Your task to perform on an android device: see tabs open on other devices in the chrome app Image 0: 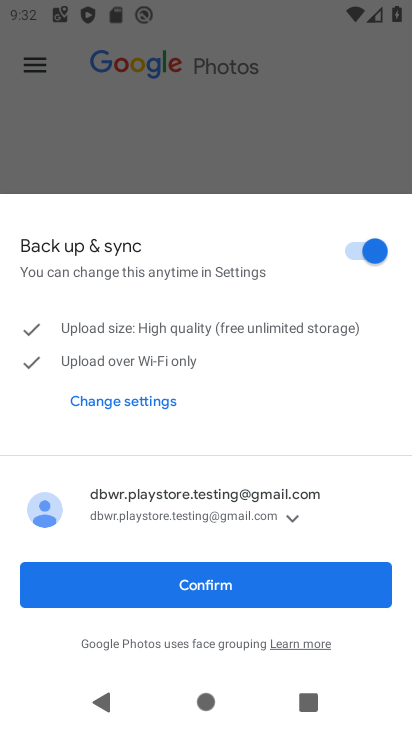
Step 0: press home button
Your task to perform on an android device: see tabs open on other devices in the chrome app Image 1: 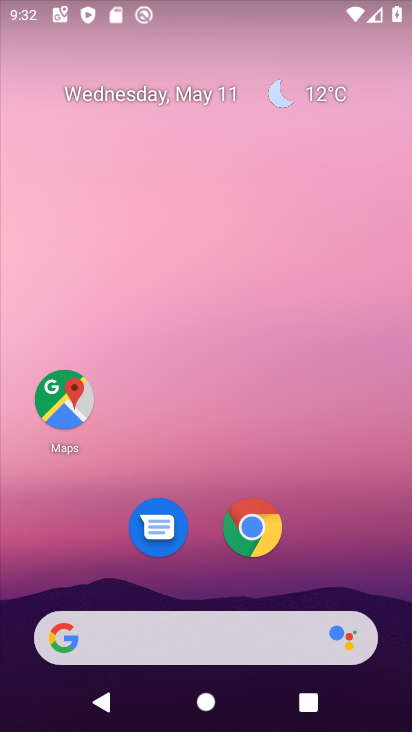
Step 1: drag from (328, 548) to (336, 62)
Your task to perform on an android device: see tabs open on other devices in the chrome app Image 2: 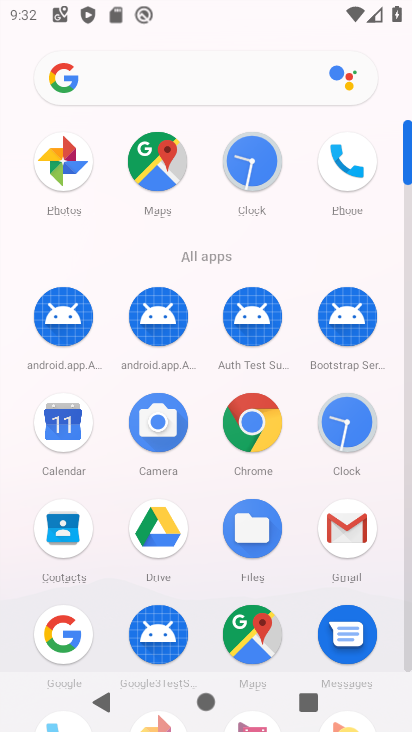
Step 2: click (245, 411)
Your task to perform on an android device: see tabs open on other devices in the chrome app Image 3: 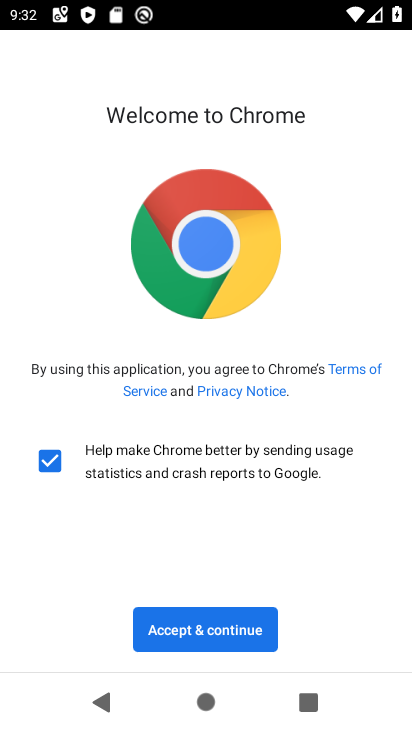
Step 3: click (212, 629)
Your task to perform on an android device: see tabs open on other devices in the chrome app Image 4: 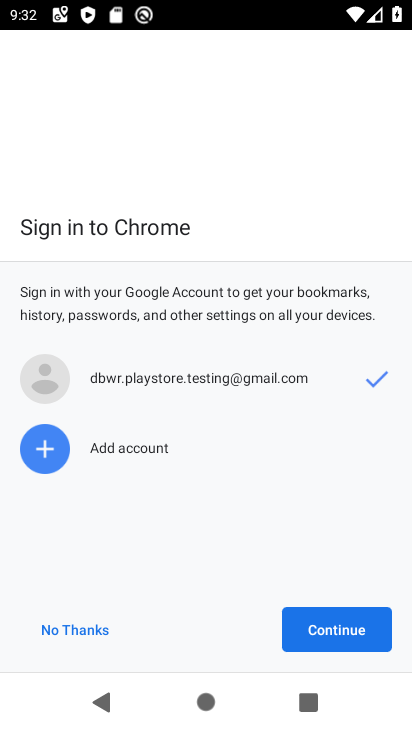
Step 4: click (58, 635)
Your task to perform on an android device: see tabs open on other devices in the chrome app Image 5: 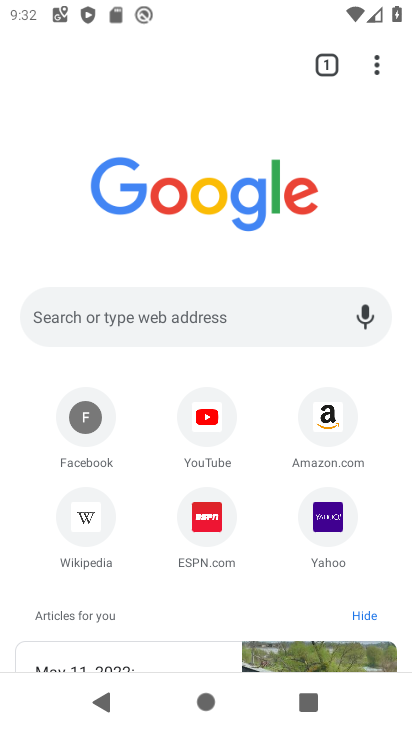
Step 5: click (369, 60)
Your task to perform on an android device: see tabs open on other devices in the chrome app Image 6: 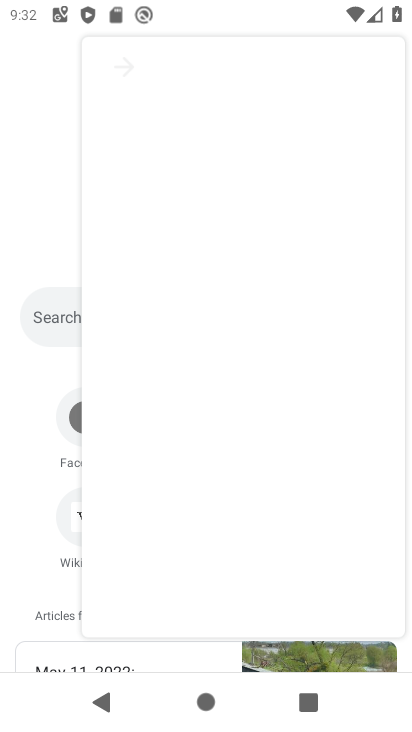
Step 6: click (369, 60)
Your task to perform on an android device: see tabs open on other devices in the chrome app Image 7: 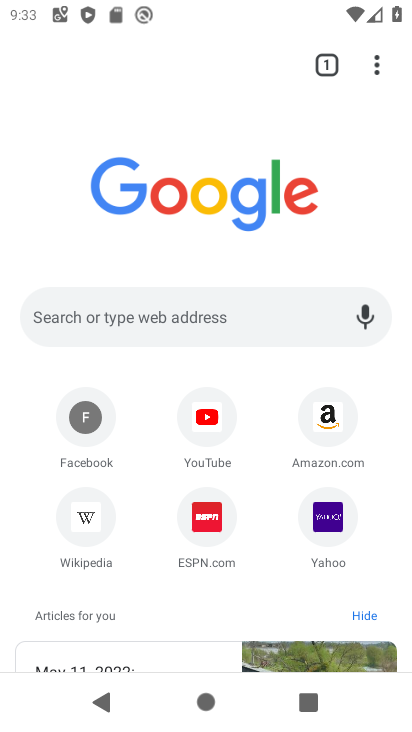
Step 7: drag from (381, 68) to (222, 311)
Your task to perform on an android device: see tabs open on other devices in the chrome app Image 8: 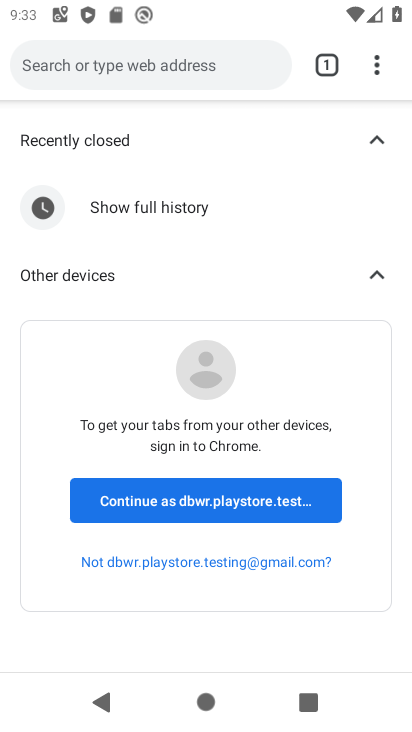
Step 8: click (158, 498)
Your task to perform on an android device: see tabs open on other devices in the chrome app Image 9: 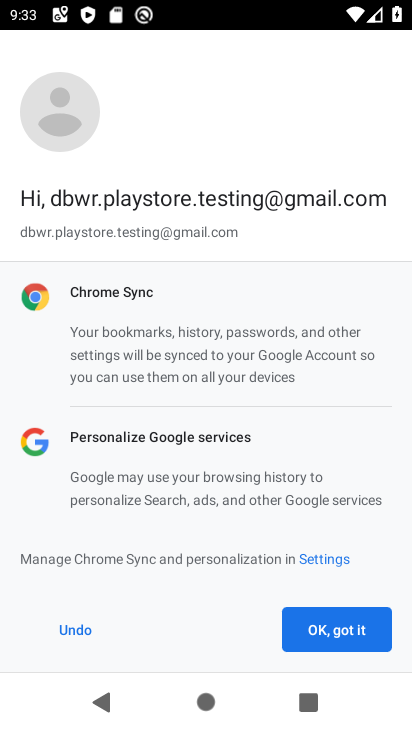
Step 9: click (327, 625)
Your task to perform on an android device: see tabs open on other devices in the chrome app Image 10: 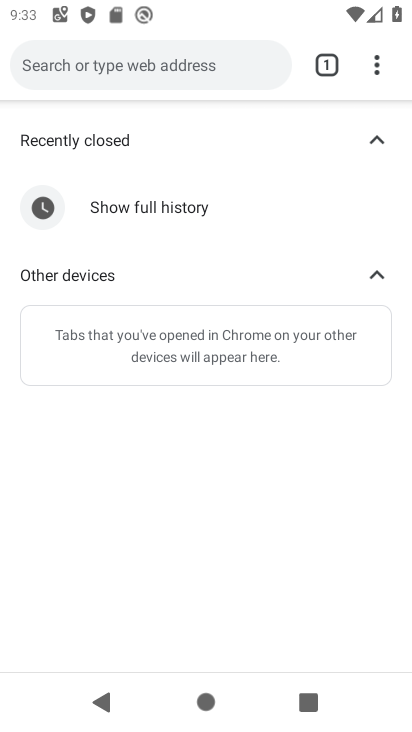
Step 10: task complete